Your task to perform on an android device: open chrome and create a bookmark for the current page Image 0: 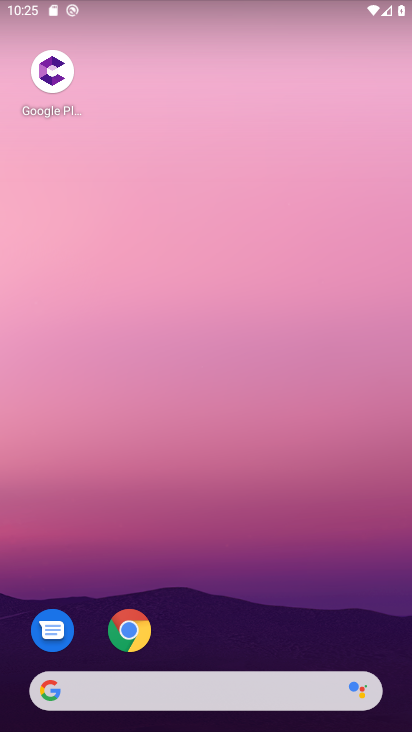
Step 0: click (125, 632)
Your task to perform on an android device: open chrome and create a bookmark for the current page Image 1: 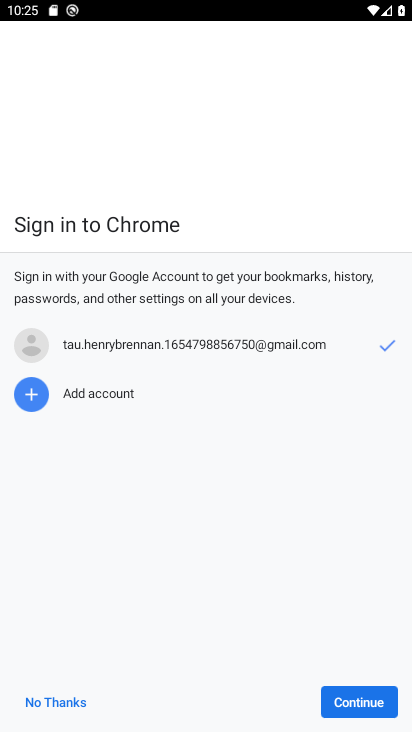
Step 1: click (353, 703)
Your task to perform on an android device: open chrome and create a bookmark for the current page Image 2: 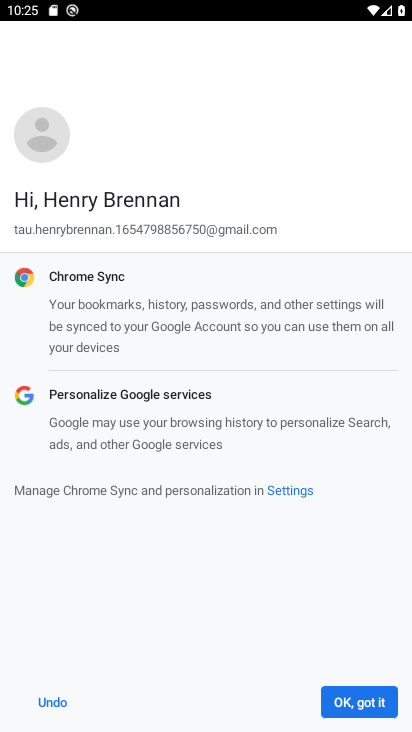
Step 2: click (353, 703)
Your task to perform on an android device: open chrome and create a bookmark for the current page Image 3: 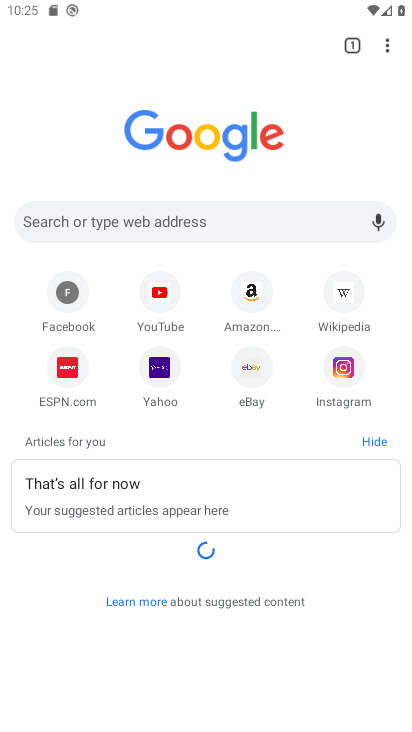
Step 3: click (389, 48)
Your task to perform on an android device: open chrome and create a bookmark for the current page Image 4: 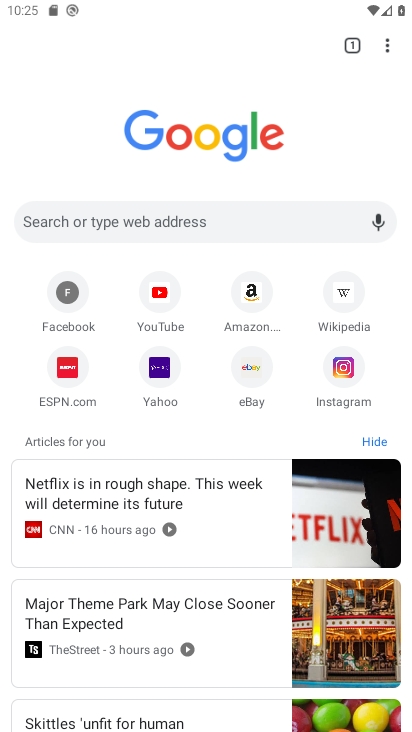
Step 4: click (383, 41)
Your task to perform on an android device: open chrome and create a bookmark for the current page Image 5: 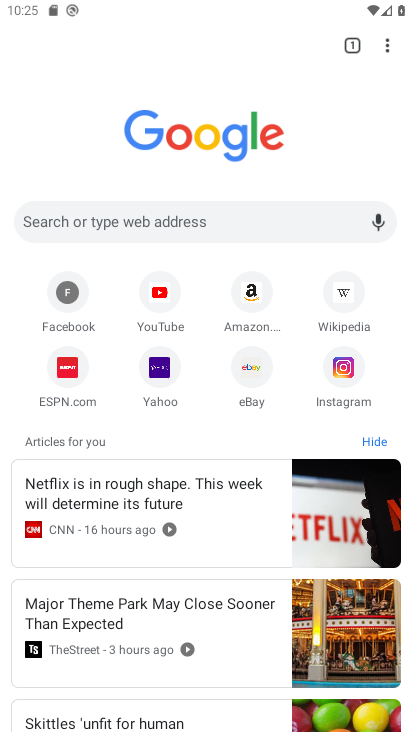
Step 5: click (387, 43)
Your task to perform on an android device: open chrome and create a bookmark for the current page Image 6: 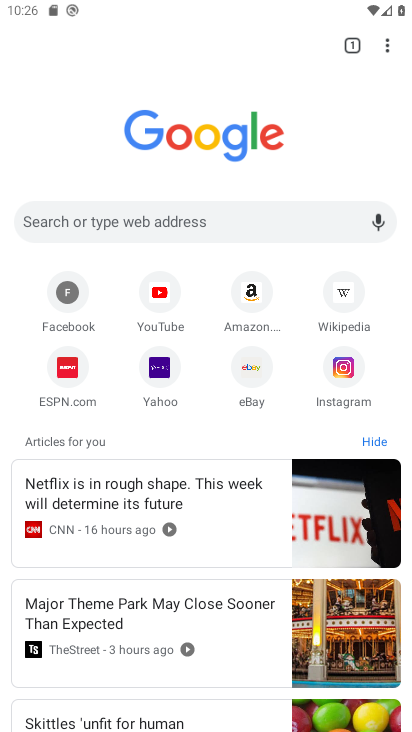
Step 6: click (384, 36)
Your task to perform on an android device: open chrome and create a bookmark for the current page Image 7: 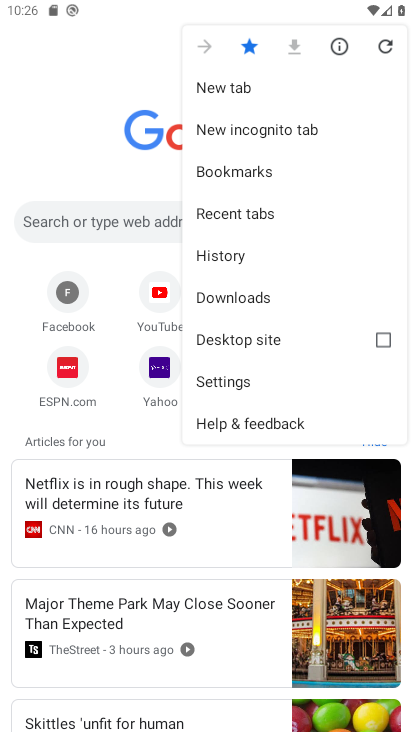
Step 7: task complete